Your task to perform on an android device: turn off wifi Image 0: 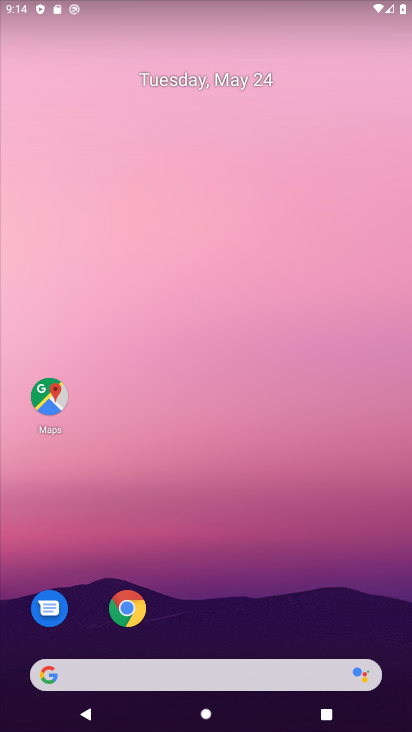
Step 0: drag from (206, 607) to (269, 72)
Your task to perform on an android device: turn off wifi Image 1: 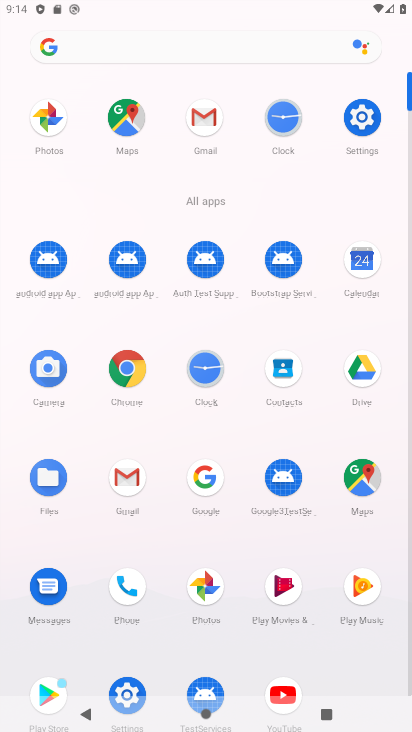
Step 1: click (363, 123)
Your task to perform on an android device: turn off wifi Image 2: 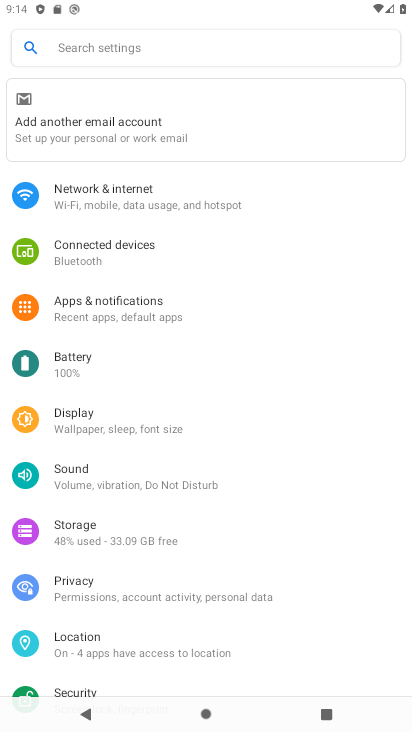
Step 2: click (204, 201)
Your task to perform on an android device: turn off wifi Image 3: 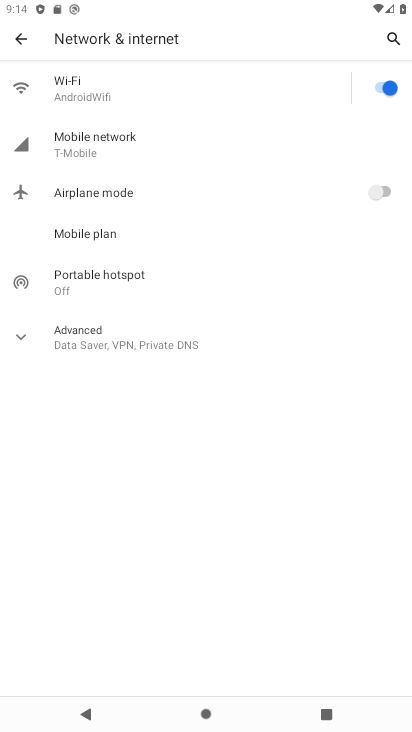
Step 3: click (376, 88)
Your task to perform on an android device: turn off wifi Image 4: 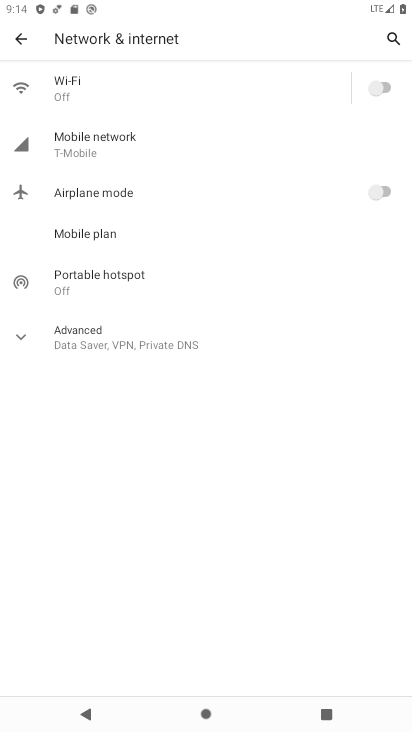
Step 4: task complete